Your task to perform on an android device: turn off airplane mode Image 0: 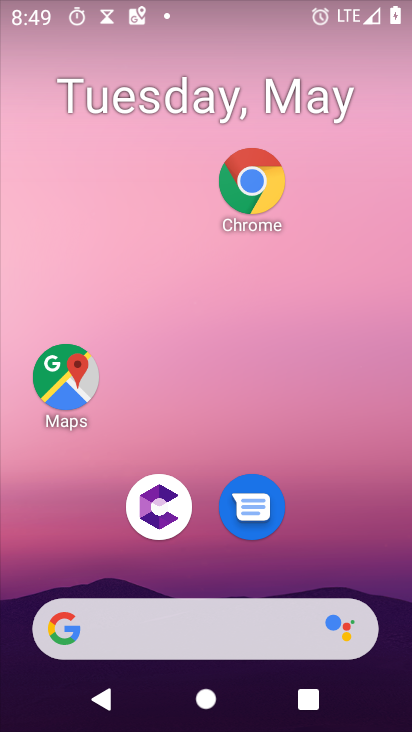
Step 0: drag from (347, 555) to (307, 130)
Your task to perform on an android device: turn off airplane mode Image 1: 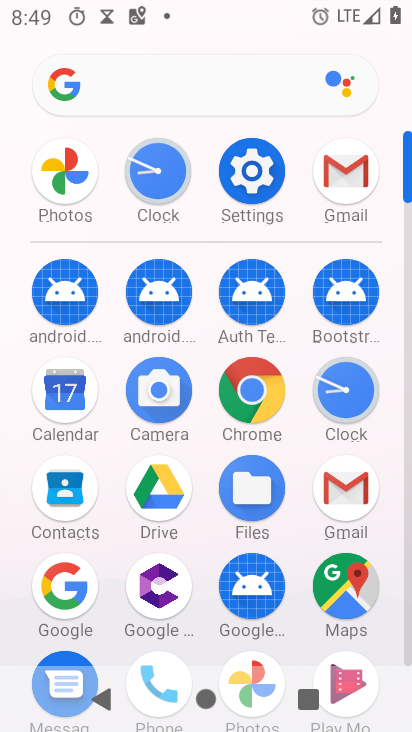
Step 1: click (234, 169)
Your task to perform on an android device: turn off airplane mode Image 2: 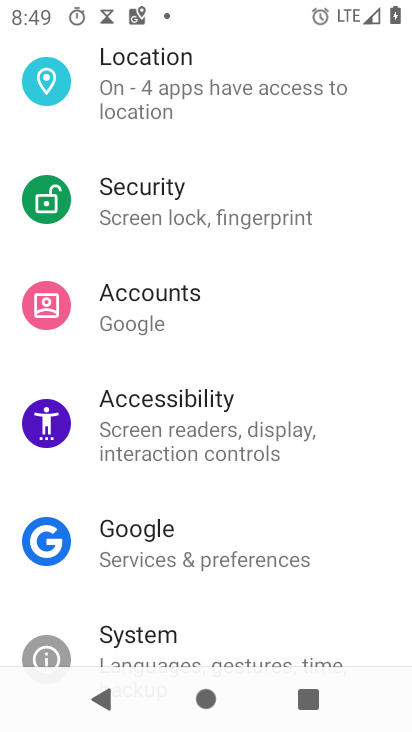
Step 2: drag from (215, 306) to (195, 484)
Your task to perform on an android device: turn off airplane mode Image 3: 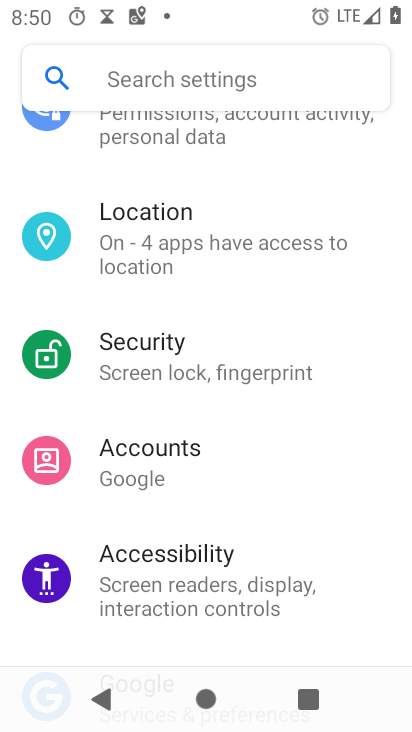
Step 3: drag from (240, 345) to (231, 467)
Your task to perform on an android device: turn off airplane mode Image 4: 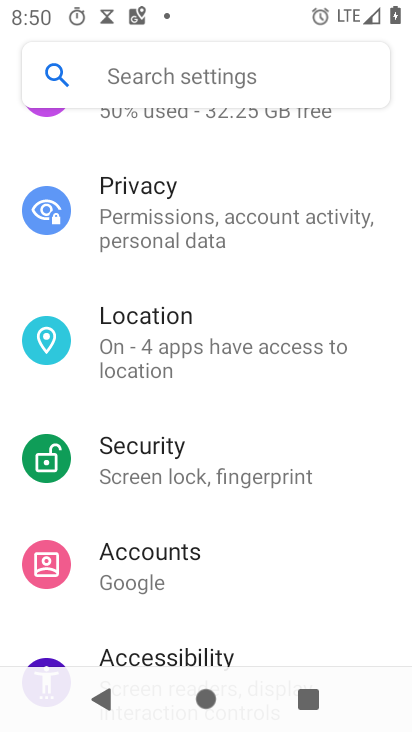
Step 4: drag from (245, 360) to (239, 487)
Your task to perform on an android device: turn off airplane mode Image 5: 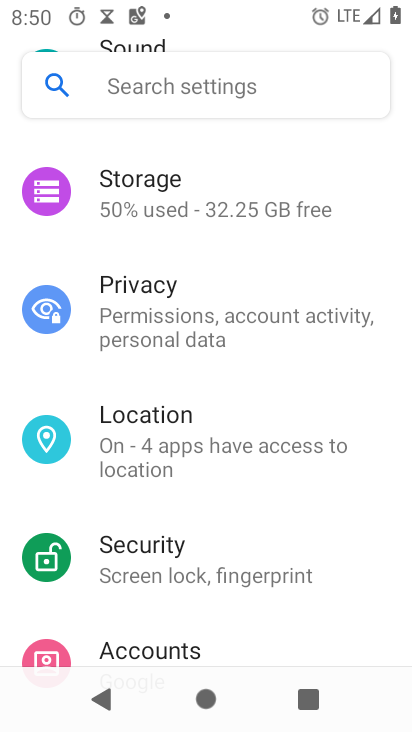
Step 5: drag from (258, 347) to (261, 451)
Your task to perform on an android device: turn off airplane mode Image 6: 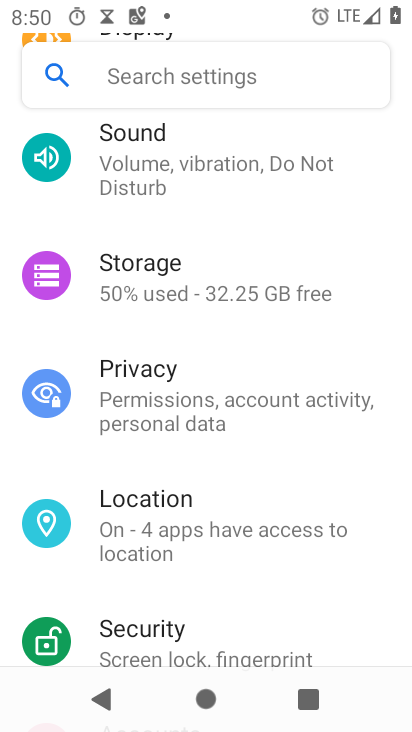
Step 6: drag from (276, 294) to (287, 475)
Your task to perform on an android device: turn off airplane mode Image 7: 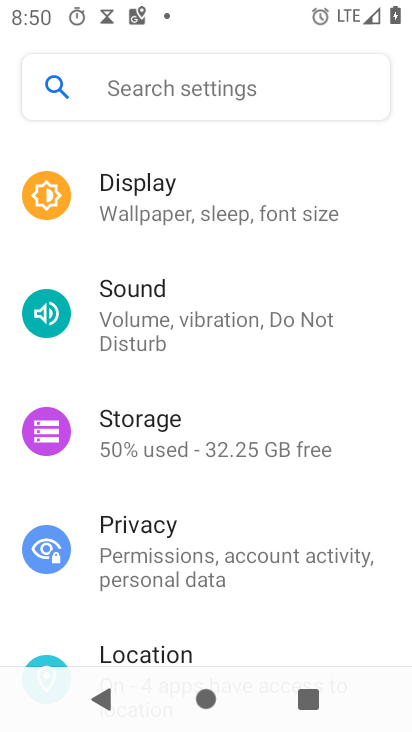
Step 7: drag from (276, 318) to (281, 444)
Your task to perform on an android device: turn off airplane mode Image 8: 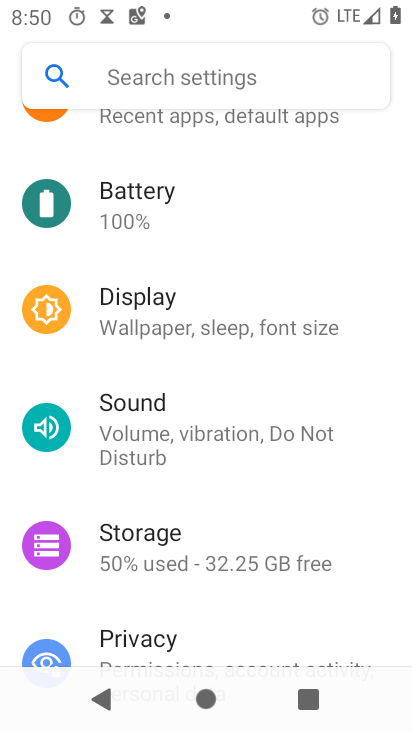
Step 8: drag from (287, 334) to (299, 498)
Your task to perform on an android device: turn off airplane mode Image 9: 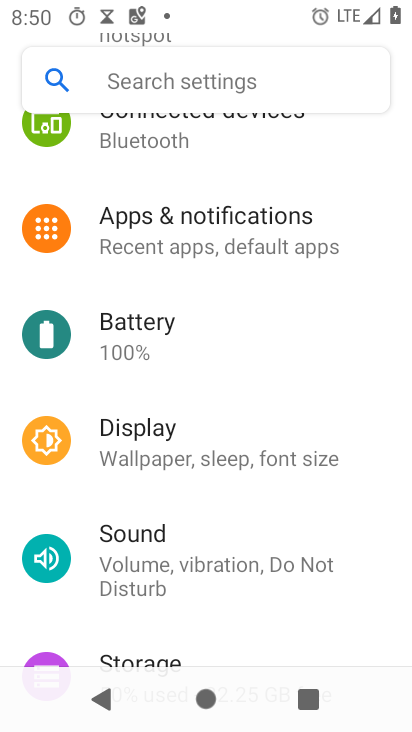
Step 9: drag from (303, 268) to (312, 497)
Your task to perform on an android device: turn off airplane mode Image 10: 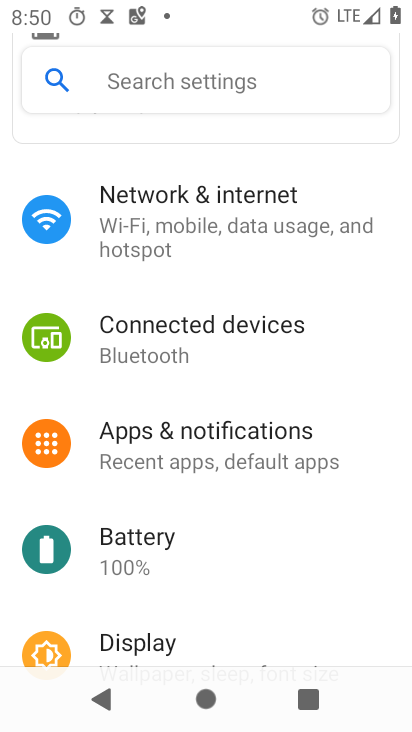
Step 10: click (267, 188)
Your task to perform on an android device: turn off airplane mode Image 11: 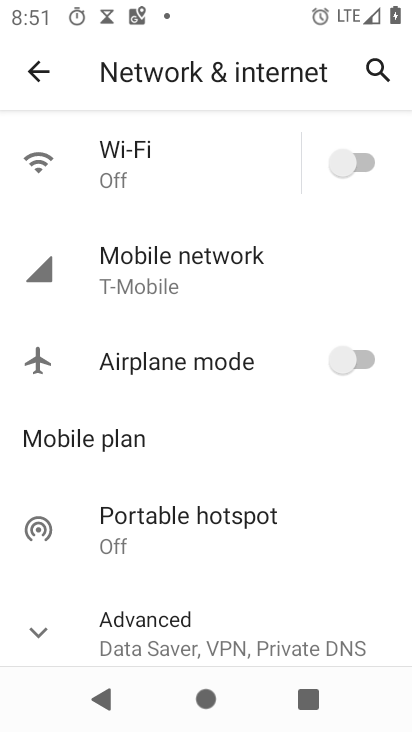
Step 11: task complete